Your task to perform on an android device: What is the recent news? Image 0: 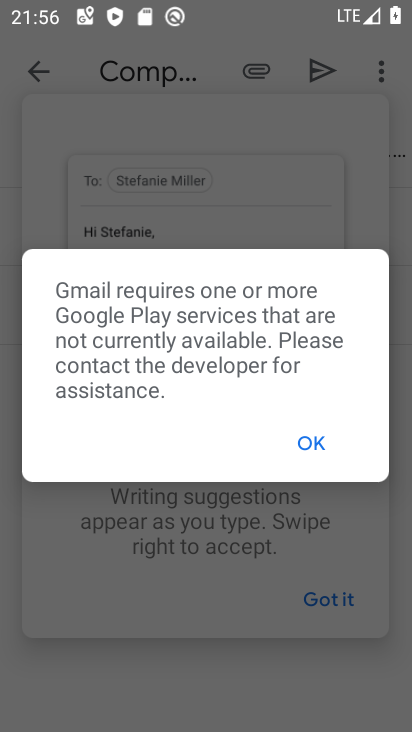
Step 0: press home button
Your task to perform on an android device: What is the recent news? Image 1: 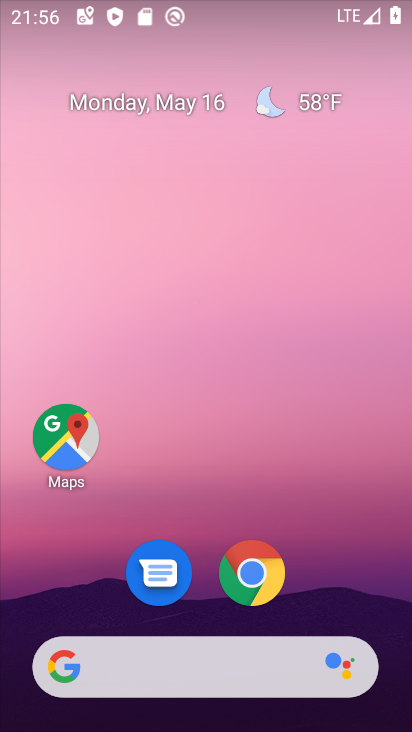
Step 1: task complete